Your task to perform on an android device: toggle notification dots Image 0: 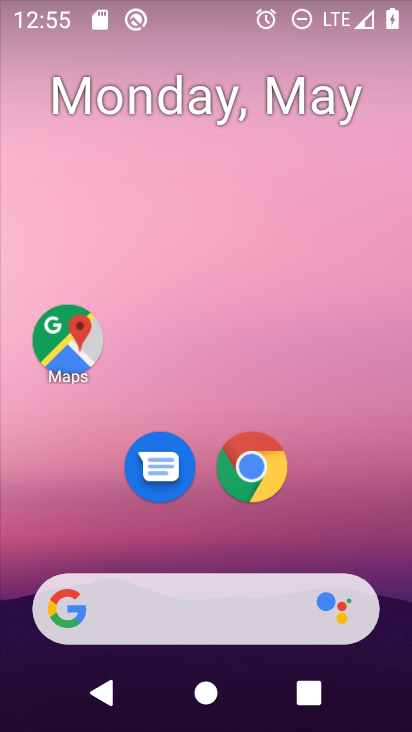
Step 0: click (393, 261)
Your task to perform on an android device: toggle notification dots Image 1: 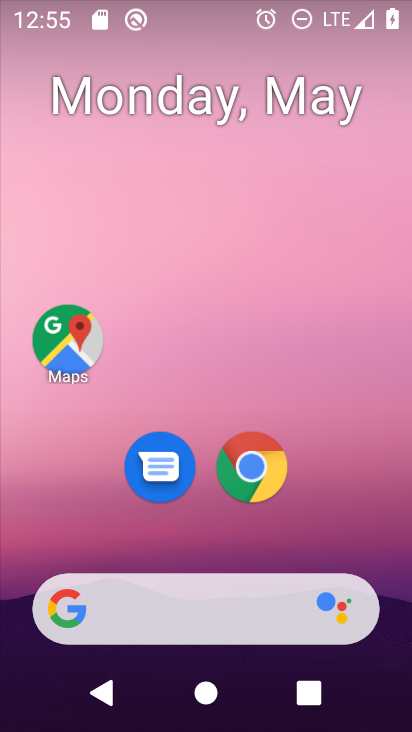
Step 1: drag from (378, 565) to (384, 26)
Your task to perform on an android device: toggle notification dots Image 2: 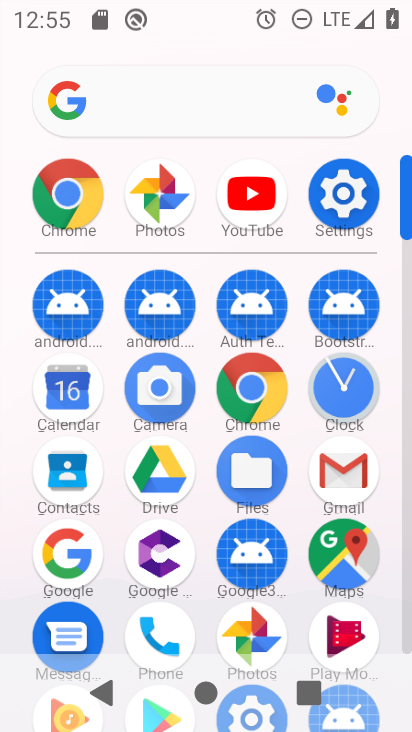
Step 2: click (348, 198)
Your task to perform on an android device: toggle notification dots Image 3: 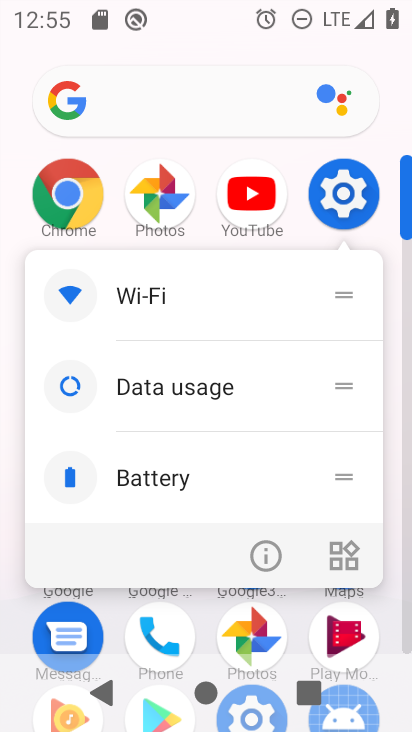
Step 3: click (348, 198)
Your task to perform on an android device: toggle notification dots Image 4: 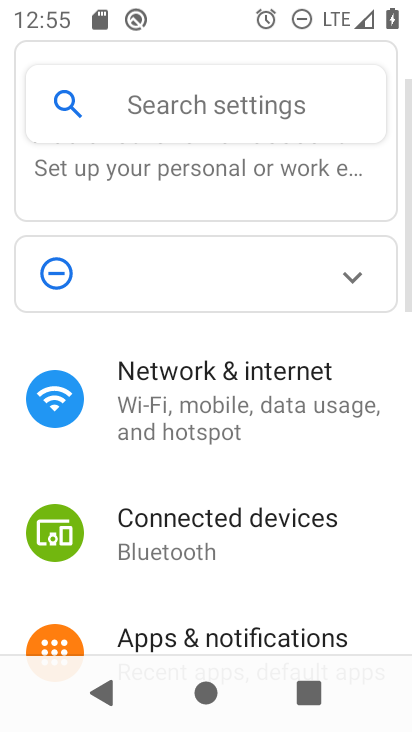
Step 4: click (164, 633)
Your task to perform on an android device: toggle notification dots Image 5: 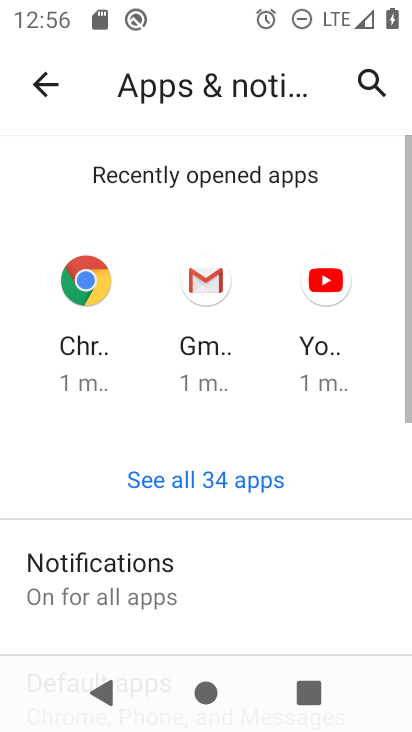
Step 5: click (135, 584)
Your task to perform on an android device: toggle notification dots Image 6: 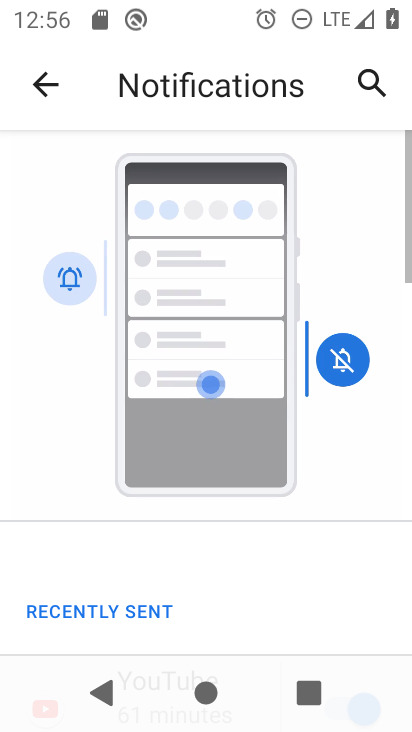
Step 6: drag from (205, 592) to (238, 90)
Your task to perform on an android device: toggle notification dots Image 7: 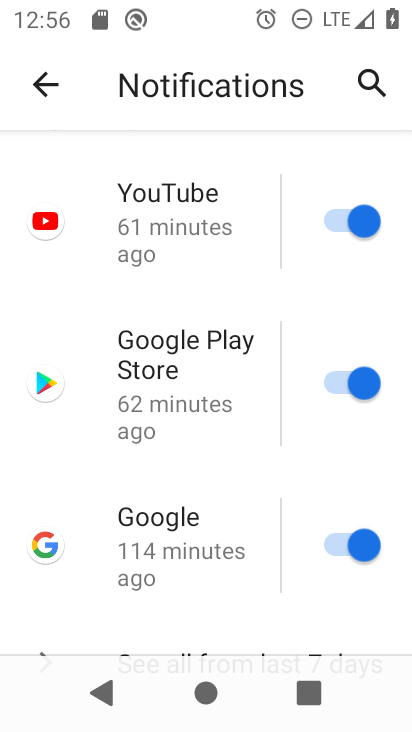
Step 7: drag from (209, 504) to (214, 62)
Your task to perform on an android device: toggle notification dots Image 8: 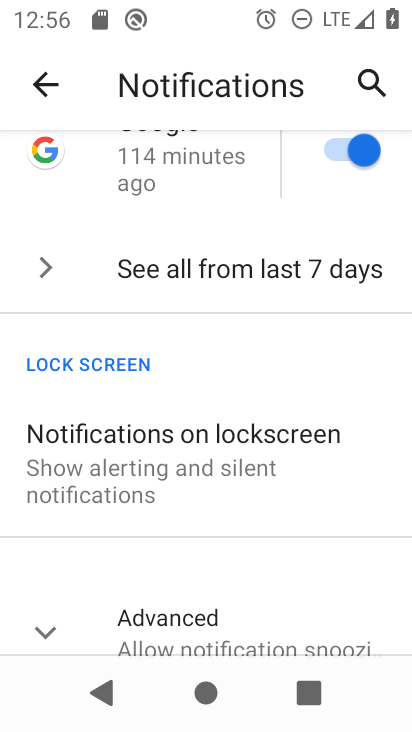
Step 8: click (48, 631)
Your task to perform on an android device: toggle notification dots Image 9: 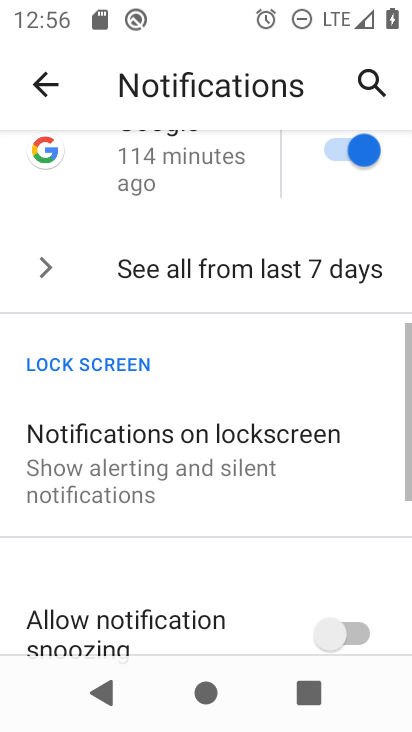
Step 9: drag from (205, 609) to (235, 183)
Your task to perform on an android device: toggle notification dots Image 10: 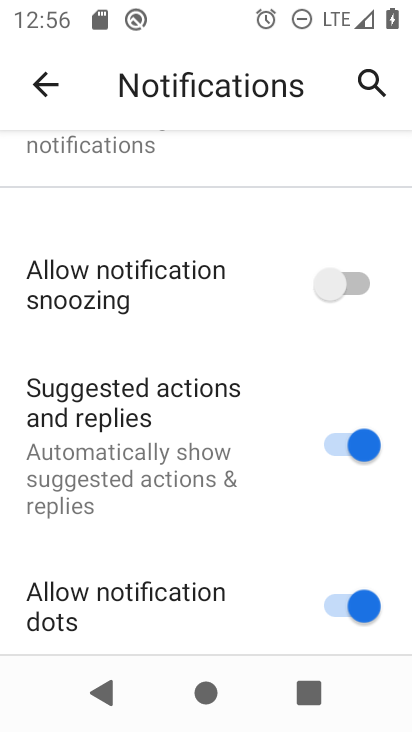
Step 10: drag from (162, 487) to (197, 238)
Your task to perform on an android device: toggle notification dots Image 11: 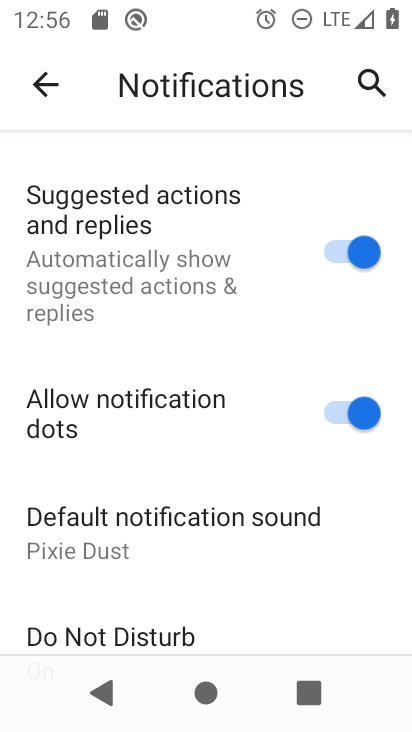
Step 11: click (359, 417)
Your task to perform on an android device: toggle notification dots Image 12: 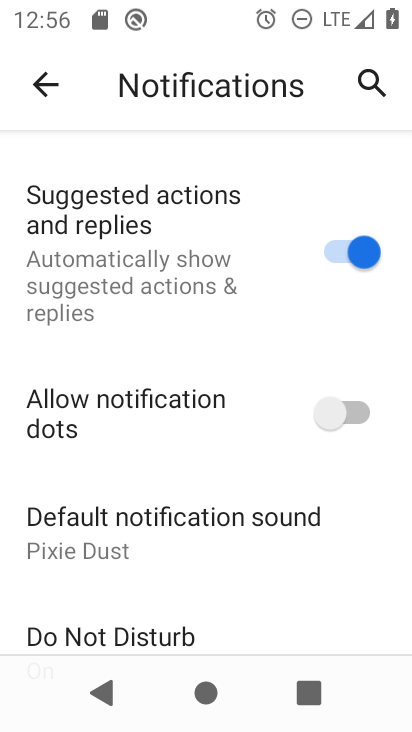
Step 12: task complete